Your task to perform on an android device: show emergency info Image 0: 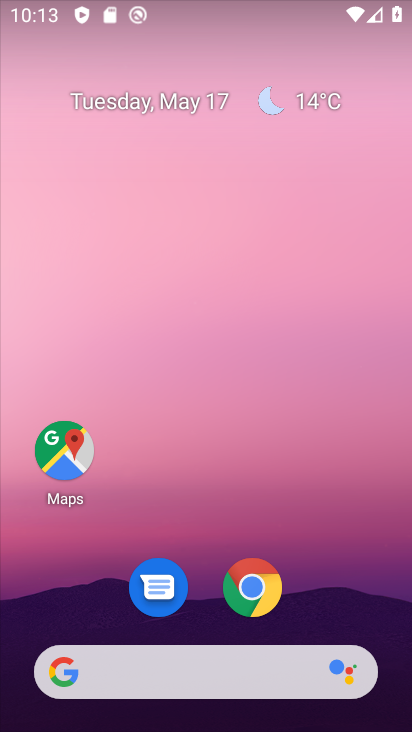
Step 0: drag from (336, 609) to (217, 161)
Your task to perform on an android device: show emergency info Image 1: 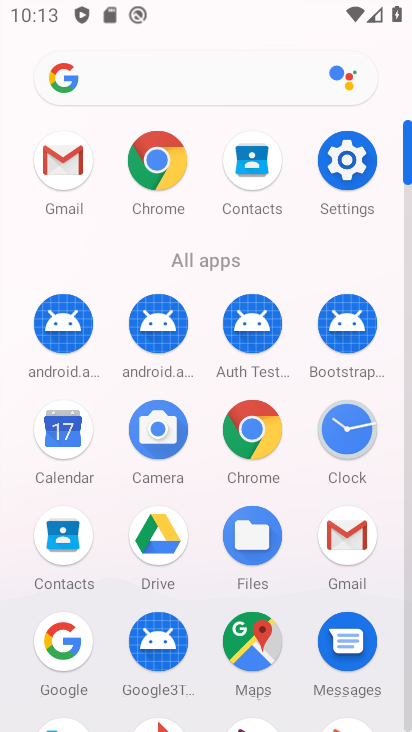
Step 1: drag from (189, 314) to (153, 42)
Your task to perform on an android device: show emergency info Image 2: 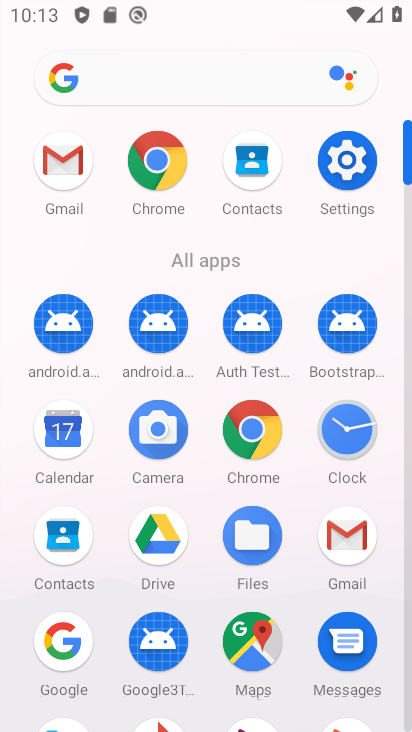
Step 2: drag from (165, 571) to (100, 24)
Your task to perform on an android device: show emergency info Image 3: 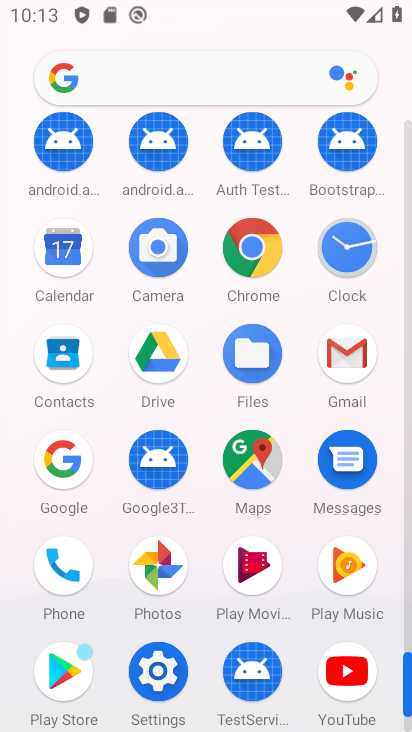
Step 3: drag from (194, 411) to (147, 32)
Your task to perform on an android device: show emergency info Image 4: 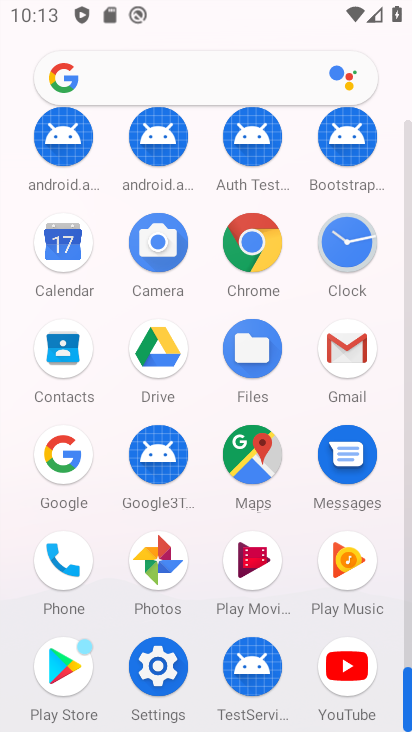
Step 4: click (353, 165)
Your task to perform on an android device: show emergency info Image 5: 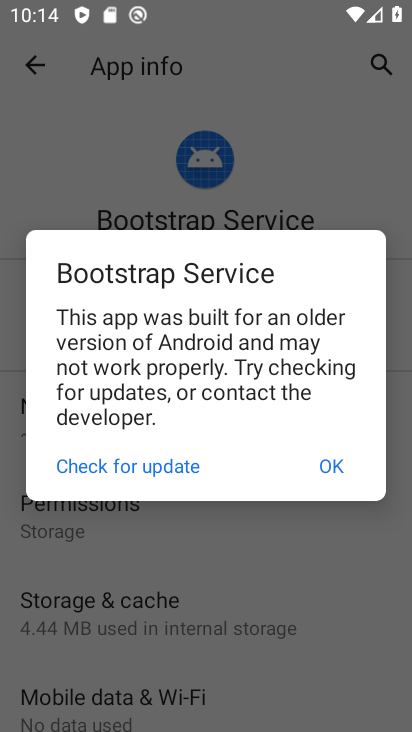
Step 5: click (322, 453)
Your task to perform on an android device: show emergency info Image 6: 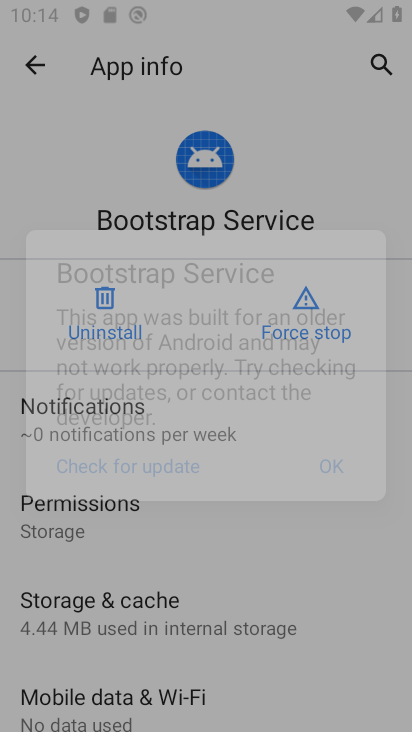
Step 6: click (322, 453)
Your task to perform on an android device: show emergency info Image 7: 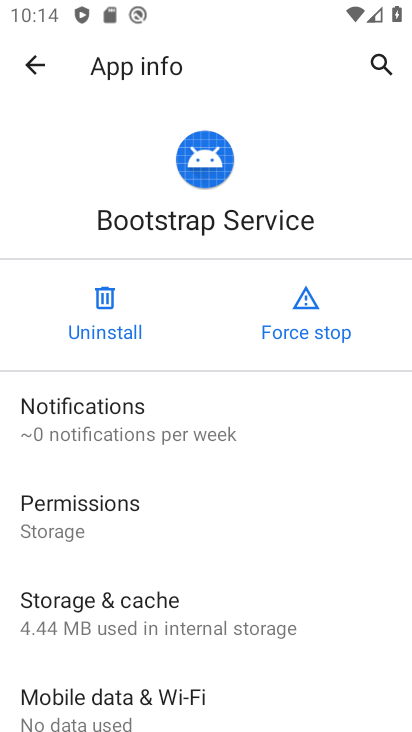
Step 7: click (323, 455)
Your task to perform on an android device: show emergency info Image 8: 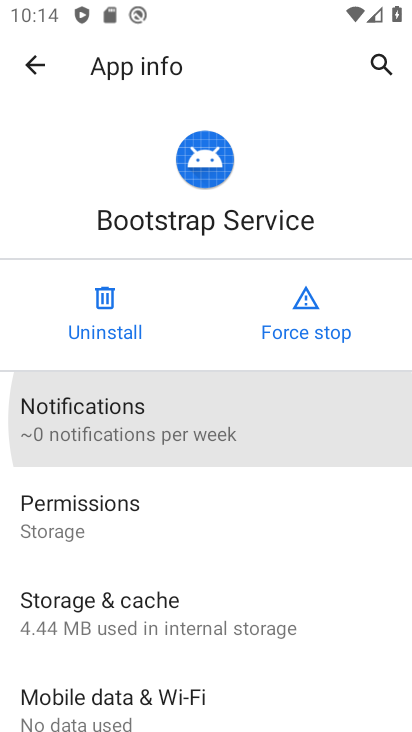
Step 8: click (323, 452)
Your task to perform on an android device: show emergency info Image 9: 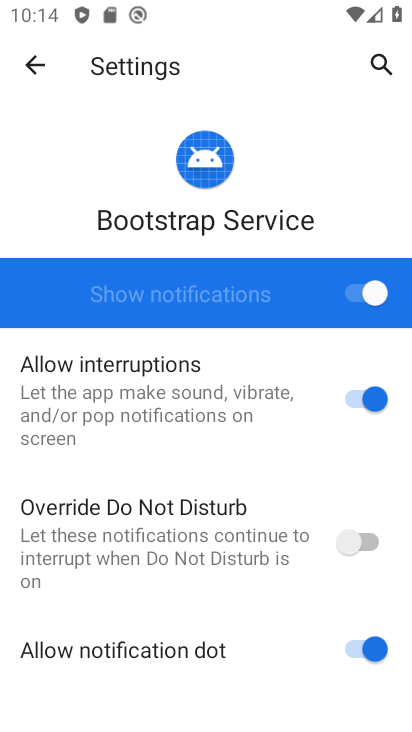
Step 9: click (29, 61)
Your task to perform on an android device: show emergency info Image 10: 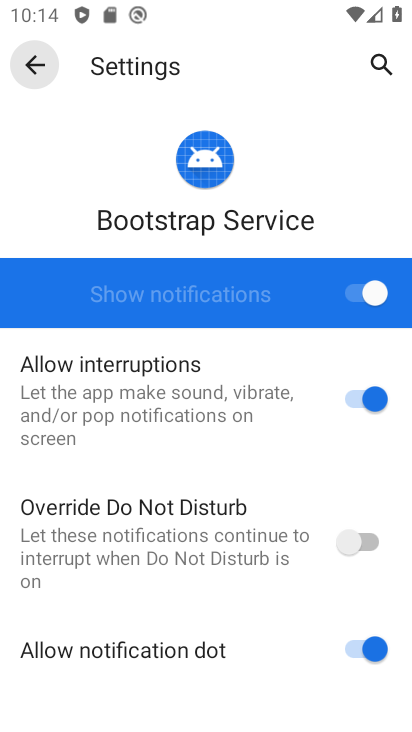
Step 10: click (29, 61)
Your task to perform on an android device: show emergency info Image 11: 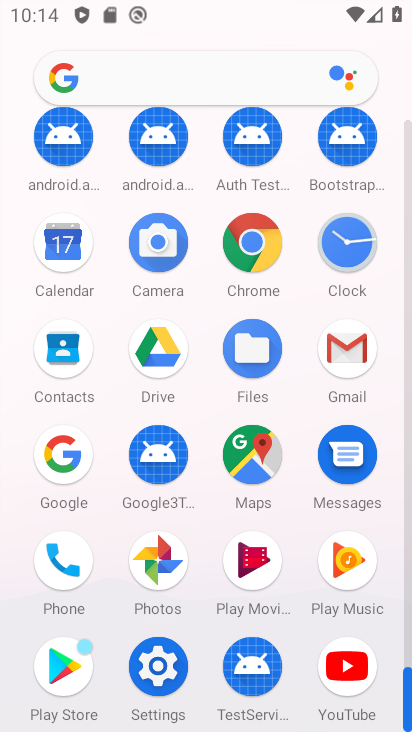
Step 11: click (154, 674)
Your task to perform on an android device: show emergency info Image 12: 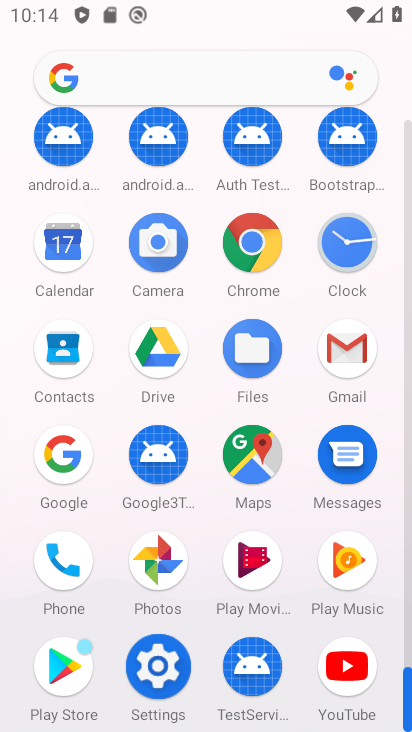
Step 12: click (156, 670)
Your task to perform on an android device: show emergency info Image 13: 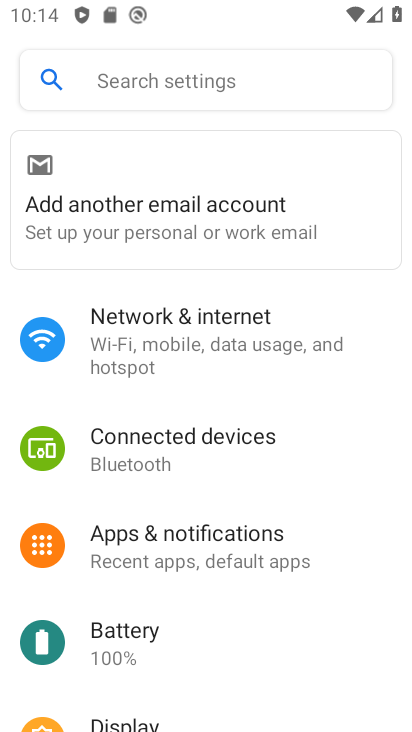
Step 13: drag from (238, 536) to (228, 193)
Your task to perform on an android device: show emergency info Image 14: 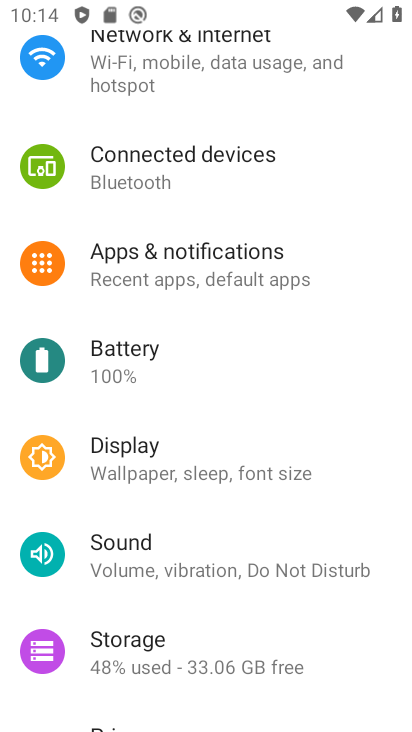
Step 14: drag from (291, 484) to (278, 327)
Your task to perform on an android device: show emergency info Image 15: 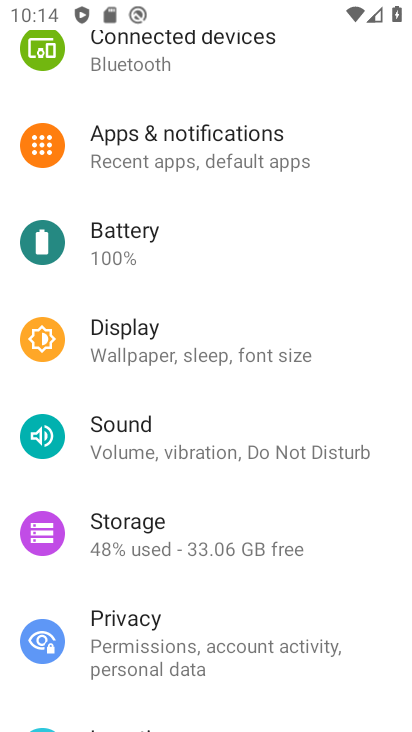
Step 15: drag from (173, 578) to (173, 239)
Your task to perform on an android device: show emergency info Image 16: 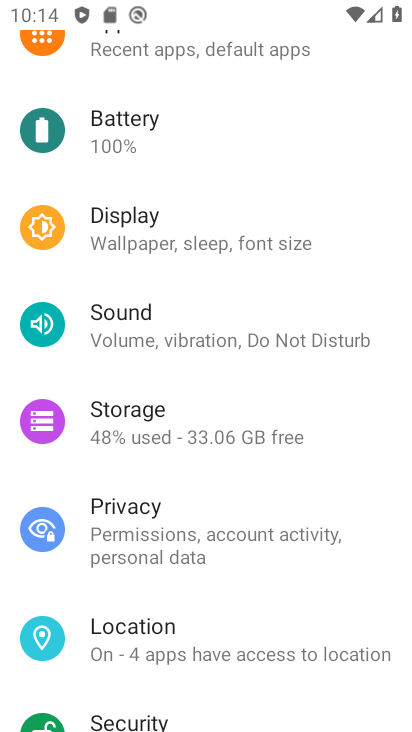
Step 16: drag from (203, 555) to (251, 285)
Your task to perform on an android device: show emergency info Image 17: 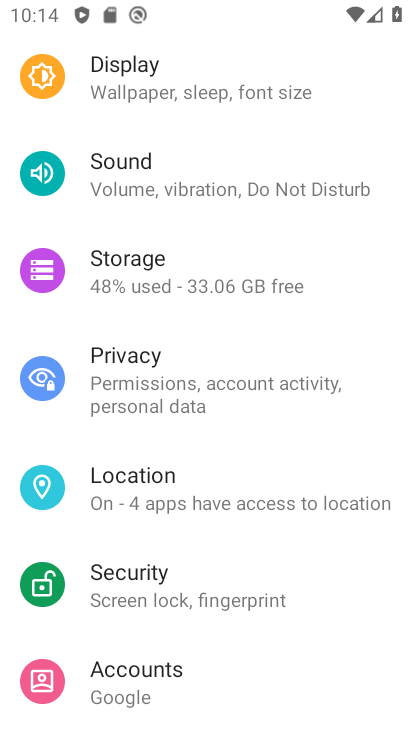
Step 17: drag from (150, 504) to (73, 210)
Your task to perform on an android device: show emergency info Image 18: 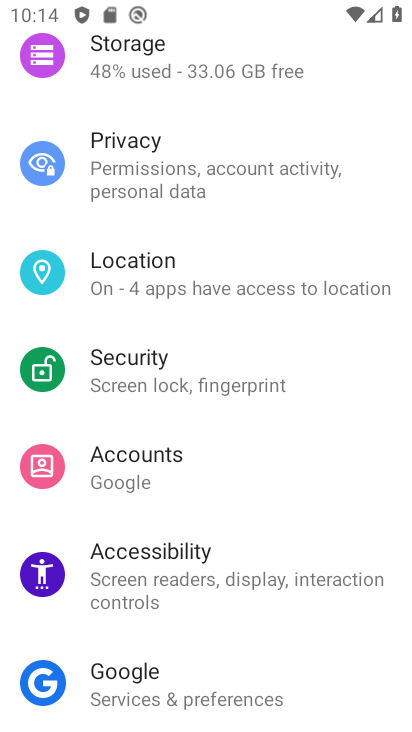
Step 18: drag from (183, 428) to (142, 155)
Your task to perform on an android device: show emergency info Image 19: 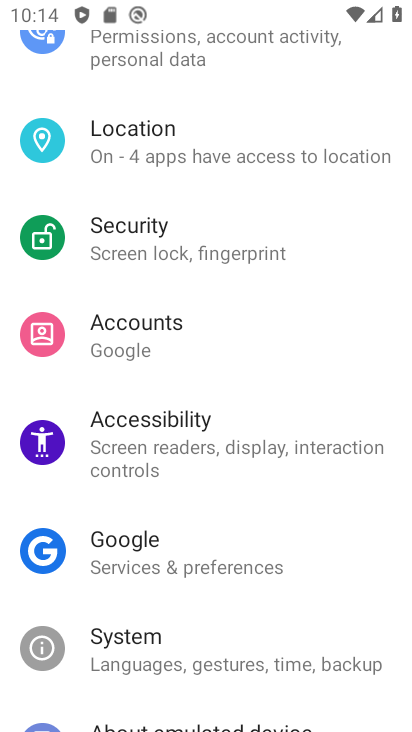
Step 19: drag from (138, 610) to (111, 455)
Your task to perform on an android device: show emergency info Image 20: 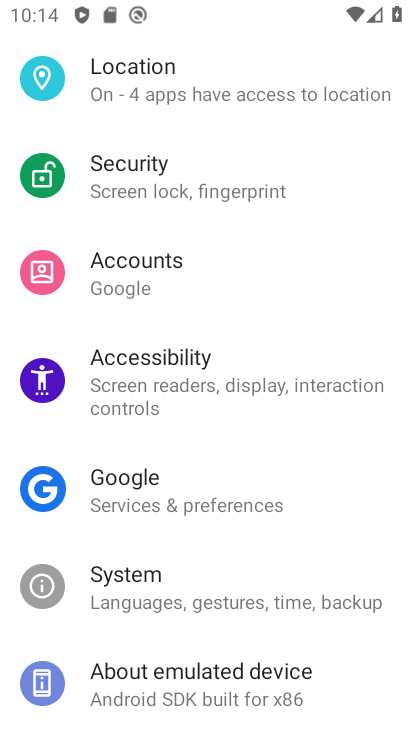
Step 20: click (163, 684)
Your task to perform on an android device: show emergency info Image 21: 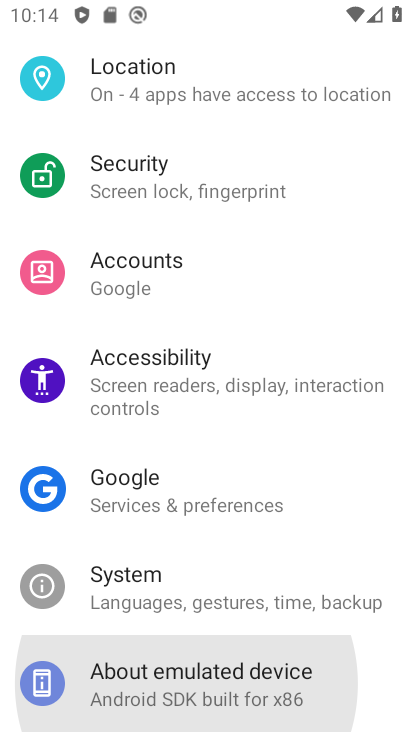
Step 21: click (153, 672)
Your task to perform on an android device: show emergency info Image 22: 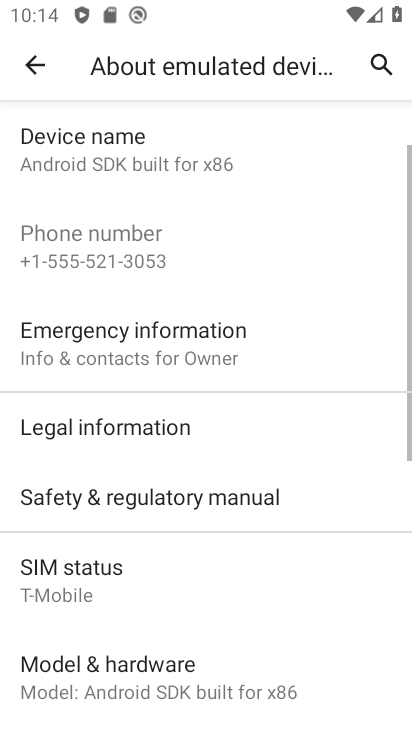
Step 22: click (111, 344)
Your task to perform on an android device: show emergency info Image 23: 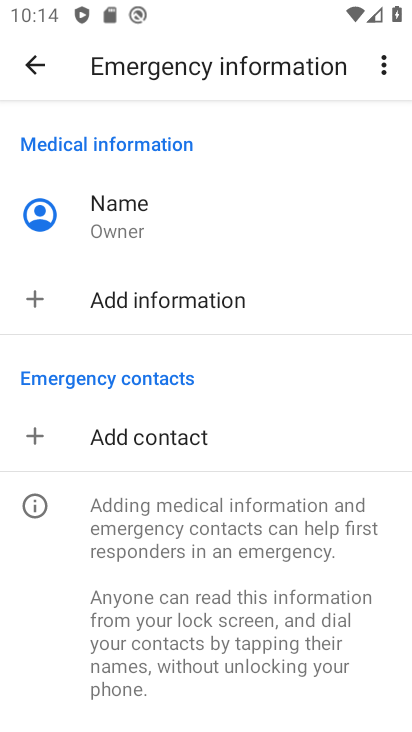
Step 23: task complete